Your task to perform on an android device: move an email to a new category in the gmail app Image 0: 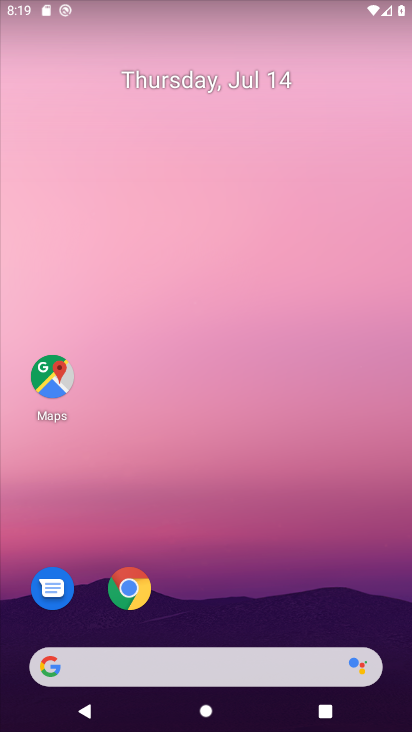
Step 0: drag from (307, 609) to (346, 83)
Your task to perform on an android device: move an email to a new category in the gmail app Image 1: 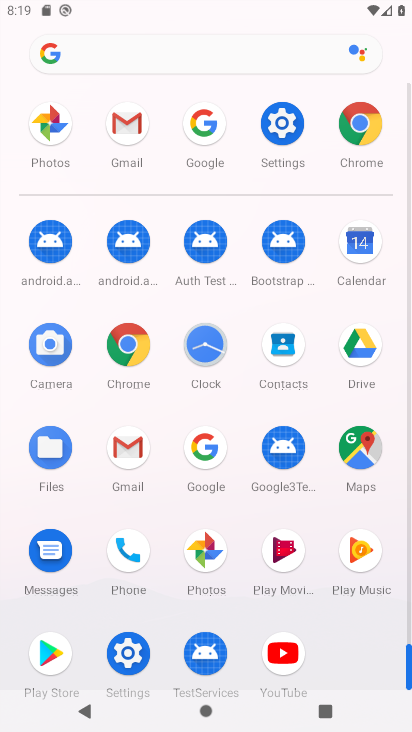
Step 1: click (128, 446)
Your task to perform on an android device: move an email to a new category in the gmail app Image 2: 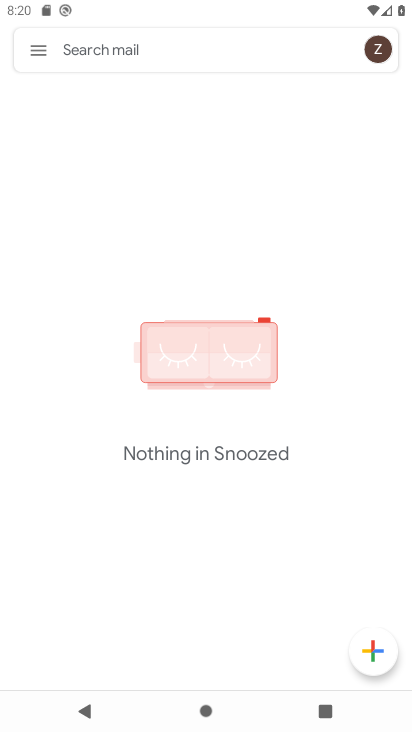
Step 2: click (38, 56)
Your task to perform on an android device: move an email to a new category in the gmail app Image 3: 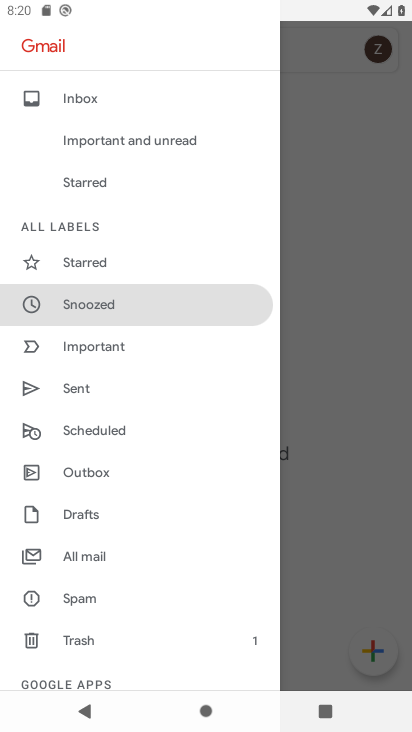
Step 3: drag from (176, 534) to (194, 436)
Your task to perform on an android device: move an email to a new category in the gmail app Image 4: 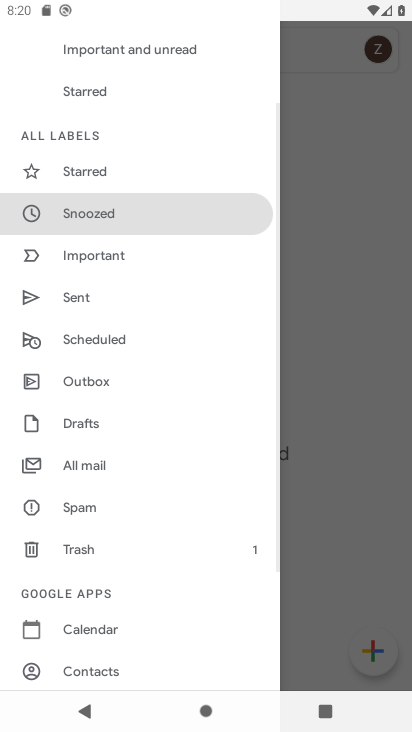
Step 4: drag from (192, 541) to (192, 427)
Your task to perform on an android device: move an email to a new category in the gmail app Image 5: 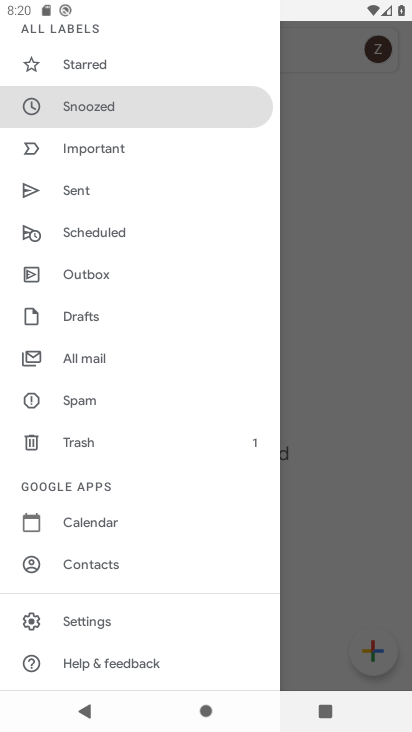
Step 5: drag from (192, 531) to (192, 411)
Your task to perform on an android device: move an email to a new category in the gmail app Image 6: 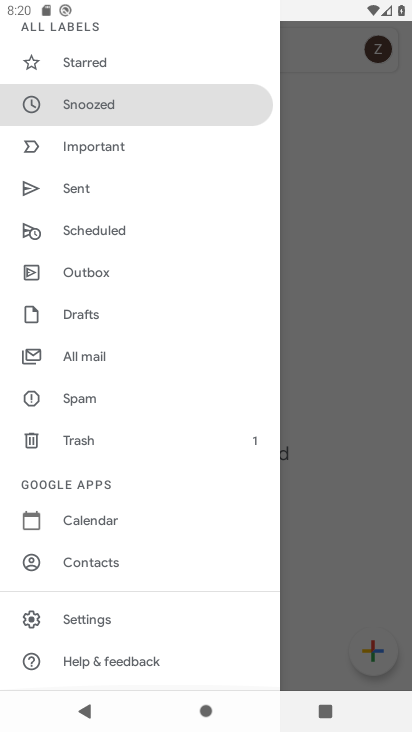
Step 6: drag from (192, 349) to (191, 423)
Your task to perform on an android device: move an email to a new category in the gmail app Image 7: 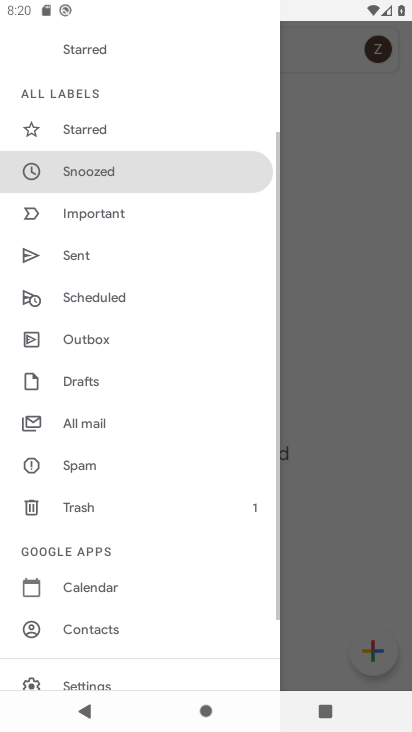
Step 7: drag from (188, 281) to (189, 375)
Your task to perform on an android device: move an email to a new category in the gmail app Image 8: 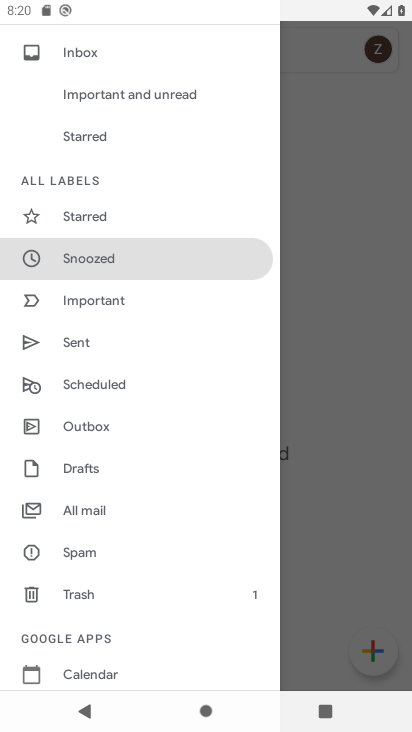
Step 8: drag from (184, 236) to (187, 328)
Your task to perform on an android device: move an email to a new category in the gmail app Image 9: 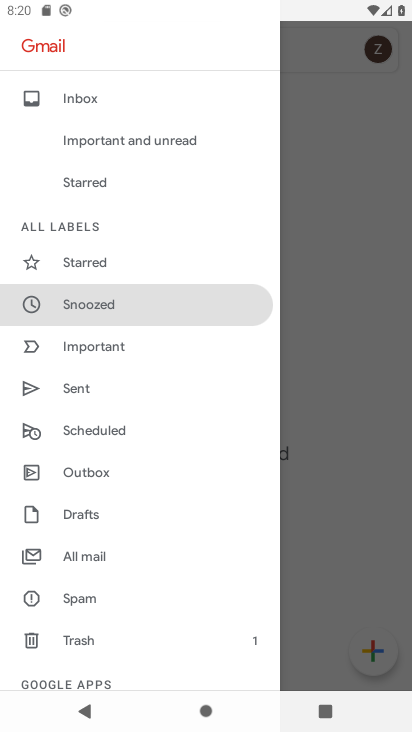
Step 9: drag from (185, 212) to (184, 314)
Your task to perform on an android device: move an email to a new category in the gmail app Image 10: 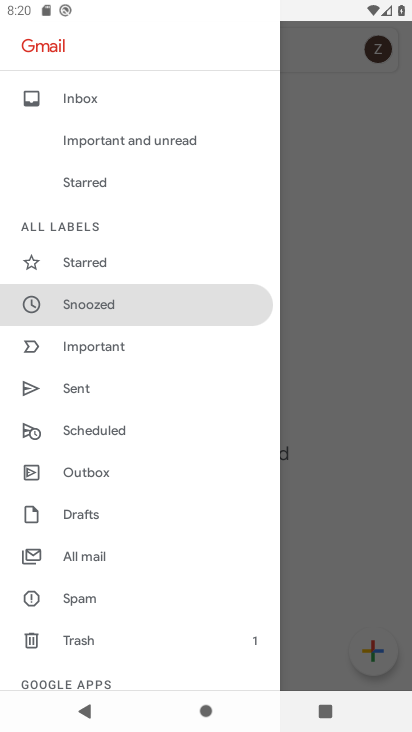
Step 10: click (113, 108)
Your task to perform on an android device: move an email to a new category in the gmail app Image 11: 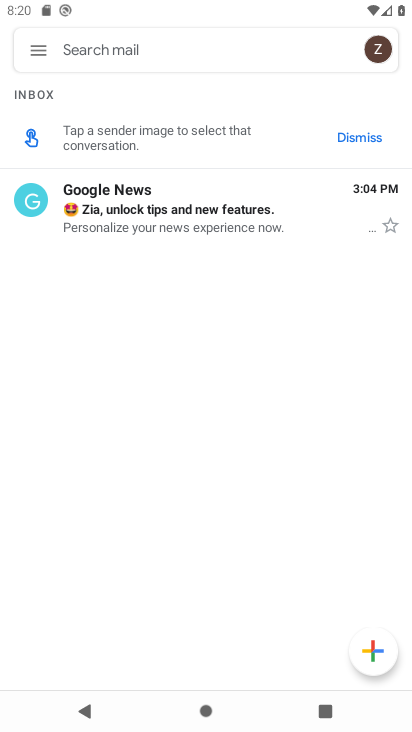
Step 11: click (215, 211)
Your task to perform on an android device: move an email to a new category in the gmail app Image 12: 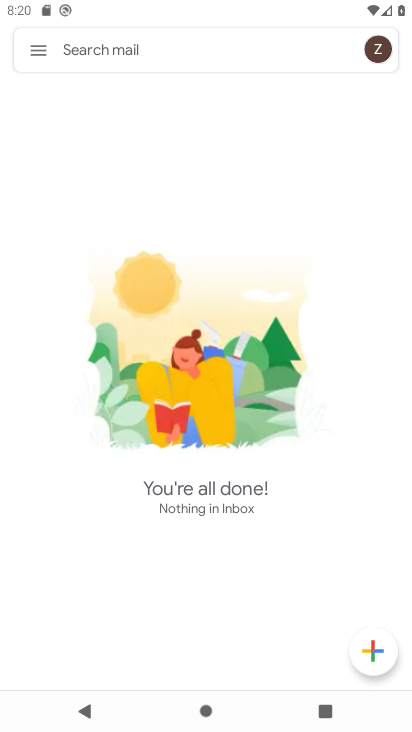
Step 12: task complete